Your task to perform on an android device: Search for "bose soundsport free" on newegg.com, select the first entry, add it to the cart, then select checkout. Image 0: 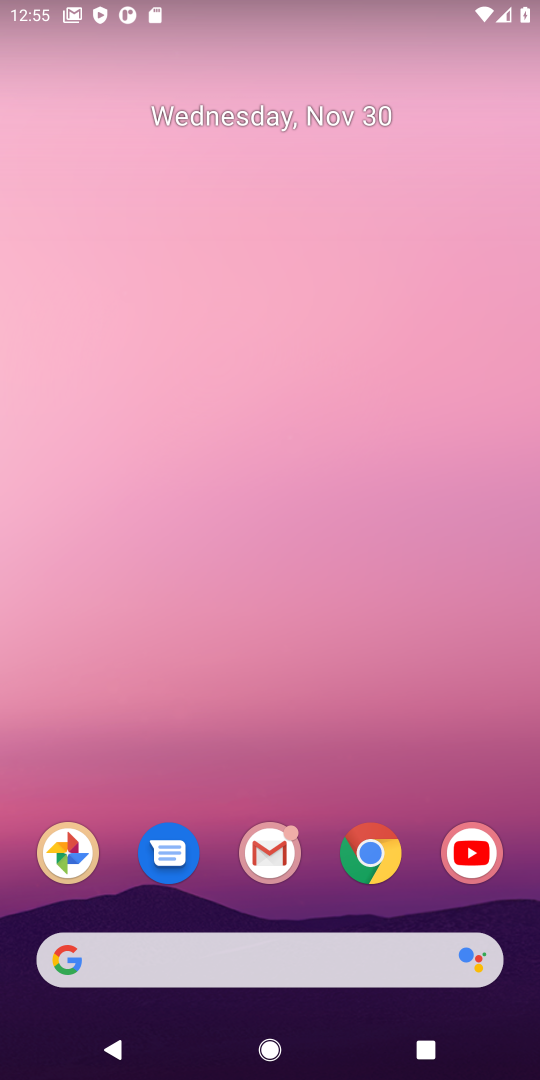
Step 0: click (377, 852)
Your task to perform on an android device: Search for "bose soundsport free" on newegg.com, select the first entry, add it to the cart, then select checkout. Image 1: 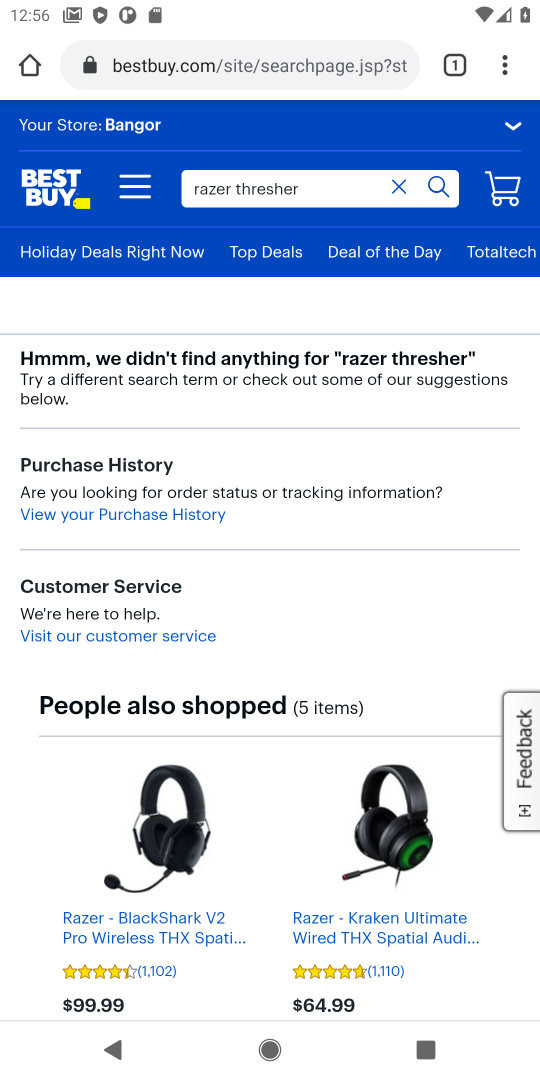
Step 1: click (236, 67)
Your task to perform on an android device: Search for "bose soundsport free" on newegg.com, select the first entry, add it to the cart, then select checkout. Image 2: 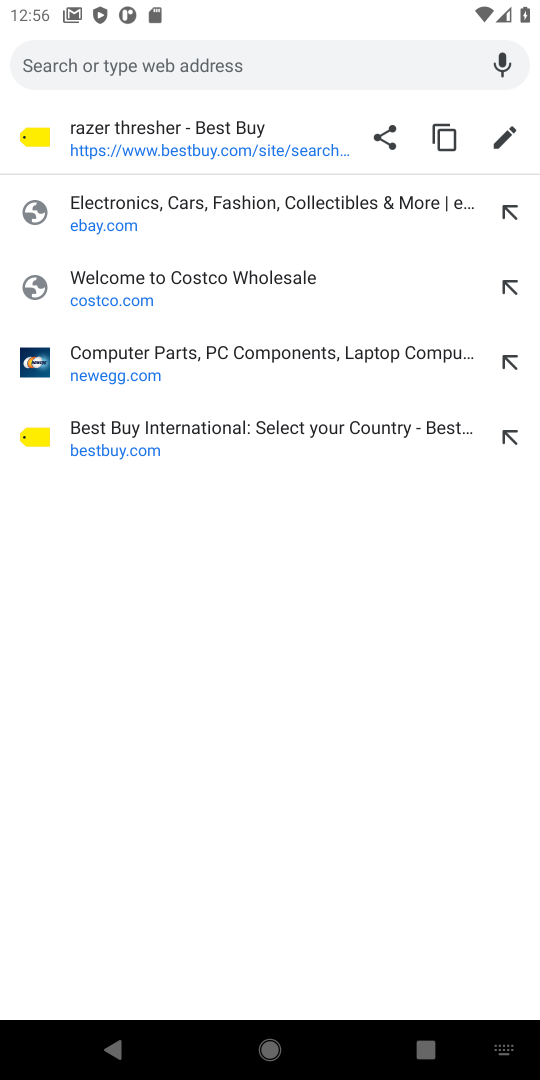
Step 2: click (91, 360)
Your task to perform on an android device: Search for "bose soundsport free" on newegg.com, select the first entry, add it to the cart, then select checkout. Image 3: 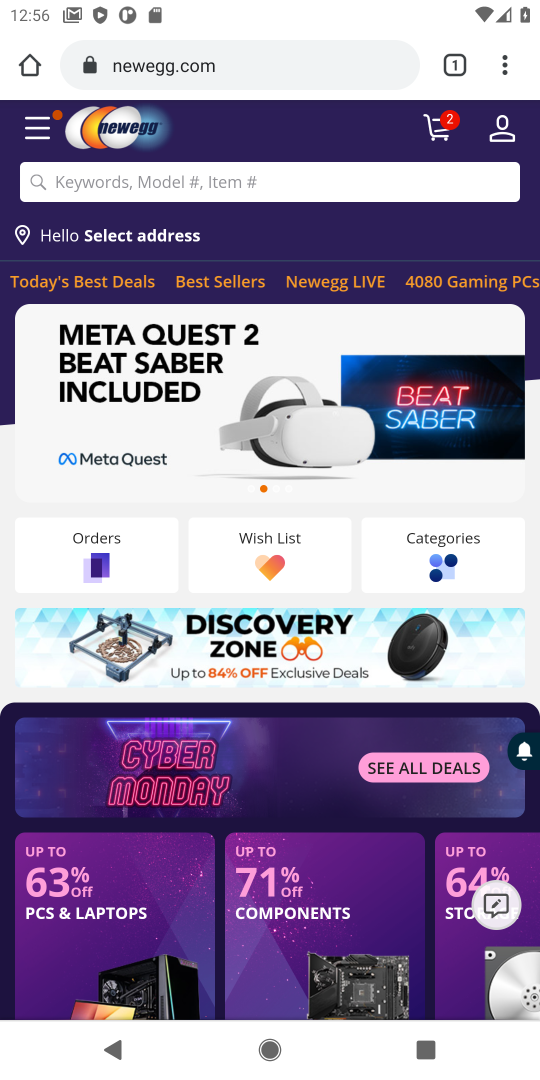
Step 3: click (86, 187)
Your task to perform on an android device: Search for "bose soundsport free" on newegg.com, select the first entry, add it to the cart, then select checkout. Image 4: 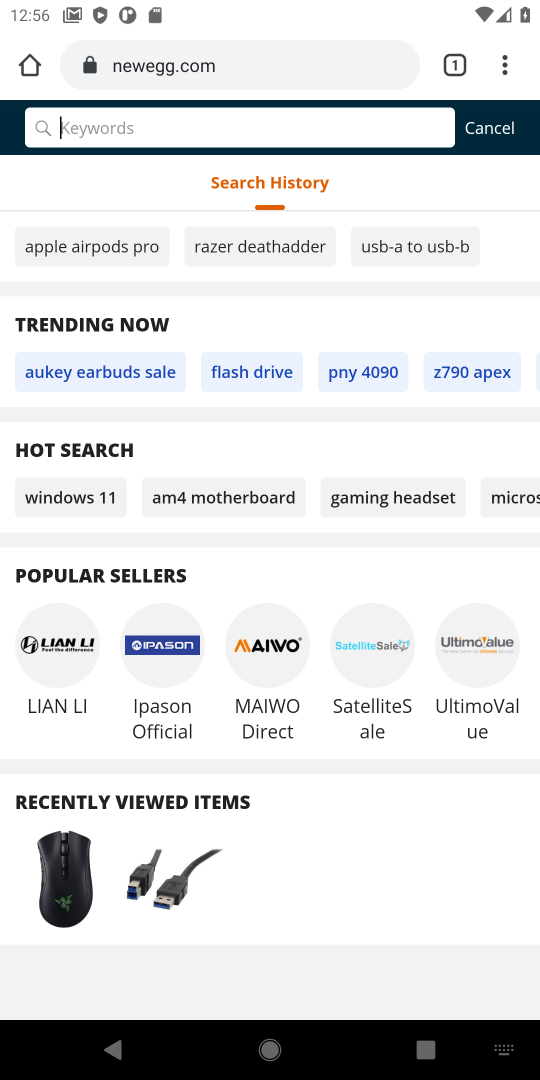
Step 4: type "bose soundsport free"
Your task to perform on an android device: Search for "bose soundsport free" on newegg.com, select the first entry, add it to the cart, then select checkout. Image 5: 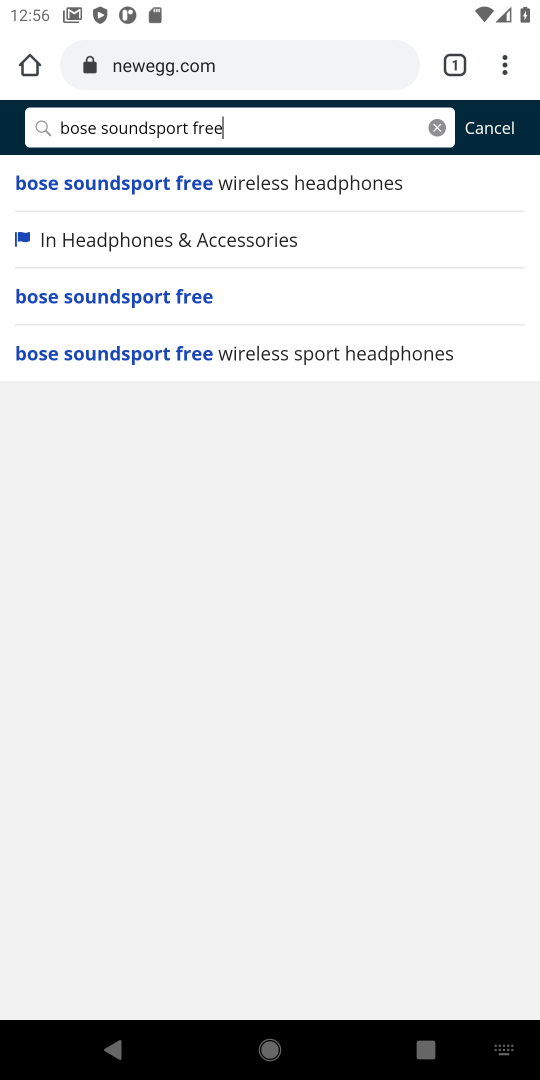
Step 5: click (111, 294)
Your task to perform on an android device: Search for "bose soundsport free" on newegg.com, select the first entry, add it to the cart, then select checkout. Image 6: 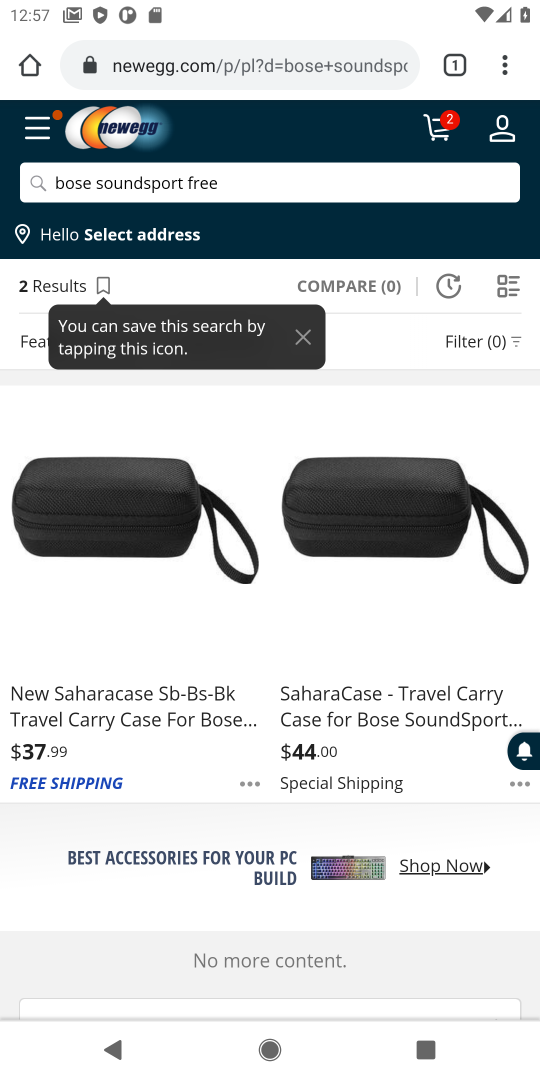
Step 6: click (109, 561)
Your task to perform on an android device: Search for "bose soundsport free" on newegg.com, select the first entry, add it to the cart, then select checkout. Image 7: 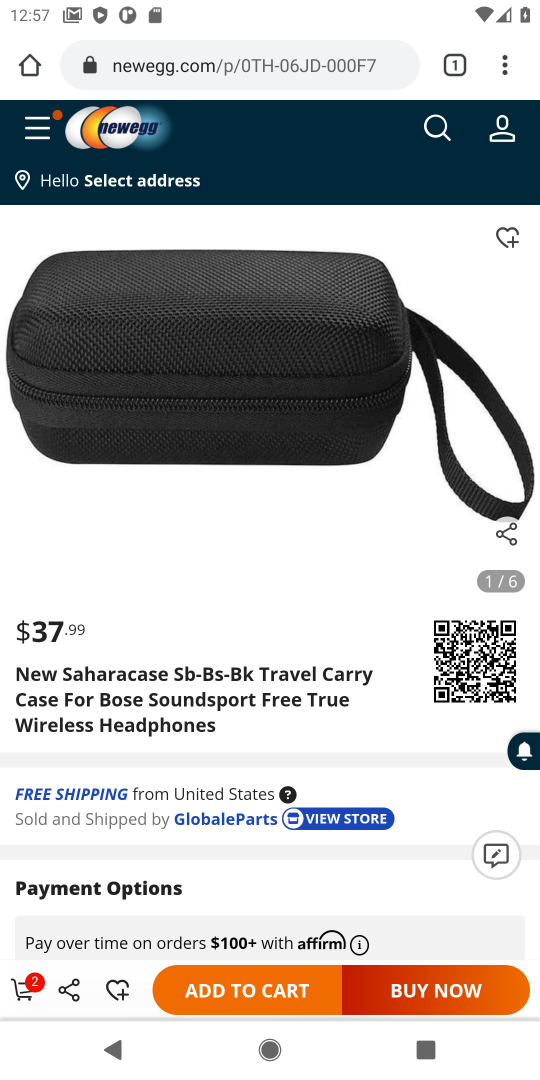
Step 7: drag from (231, 709) to (243, 583)
Your task to perform on an android device: Search for "bose soundsport free" on newegg.com, select the first entry, add it to the cart, then select checkout. Image 8: 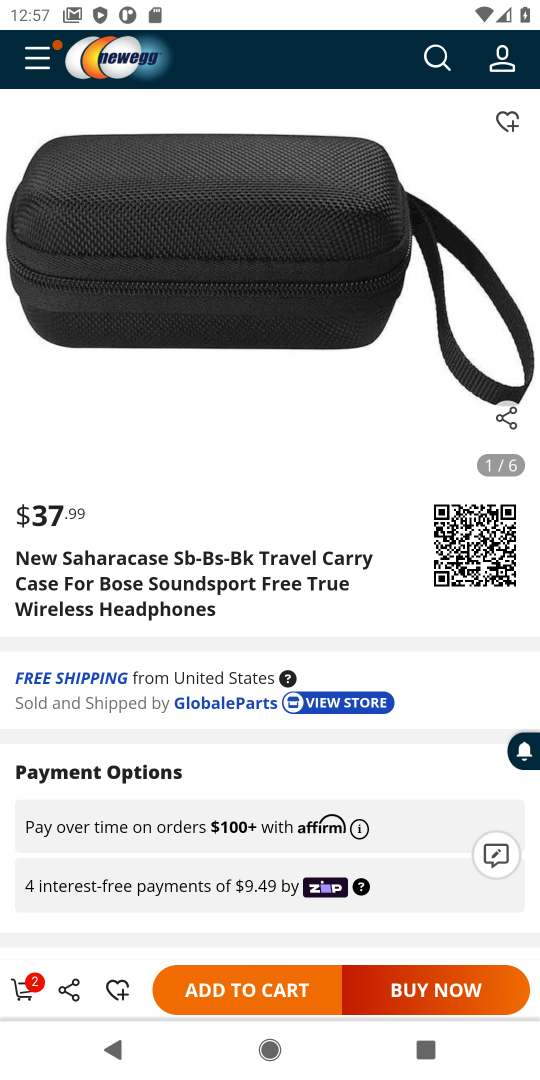
Step 8: click (246, 999)
Your task to perform on an android device: Search for "bose soundsport free" on newegg.com, select the first entry, add it to the cart, then select checkout. Image 9: 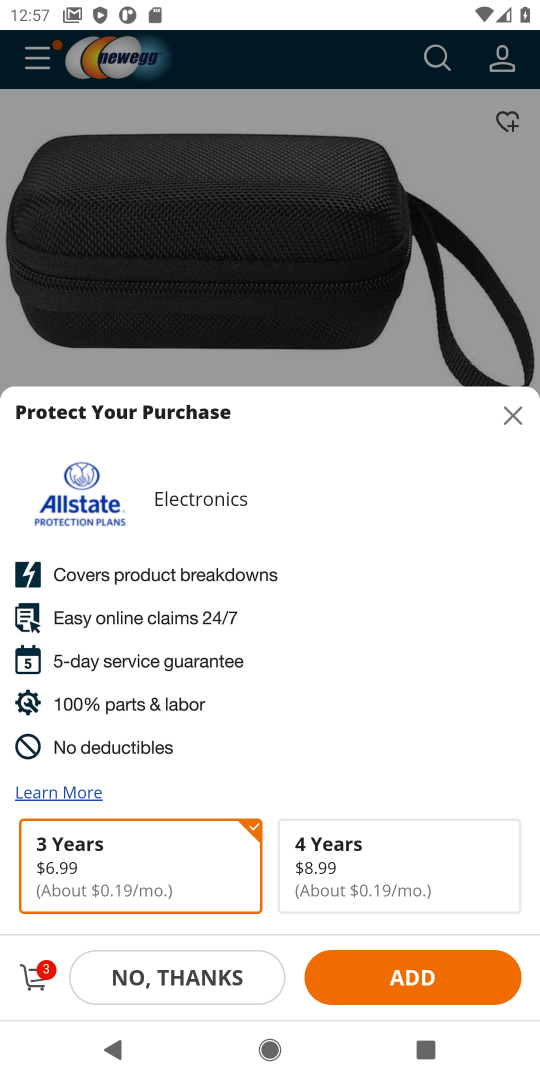
Step 9: click (37, 989)
Your task to perform on an android device: Search for "bose soundsport free" on newegg.com, select the first entry, add it to the cart, then select checkout. Image 10: 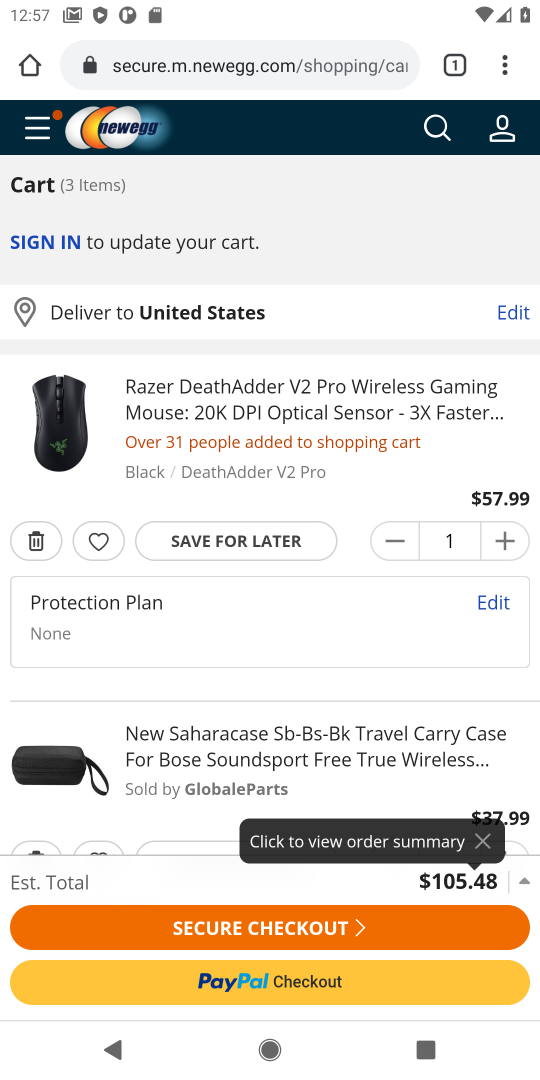
Step 10: click (270, 925)
Your task to perform on an android device: Search for "bose soundsport free" on newegg.com, select the first entry, add it to the cart, then select checkout. Image 11: 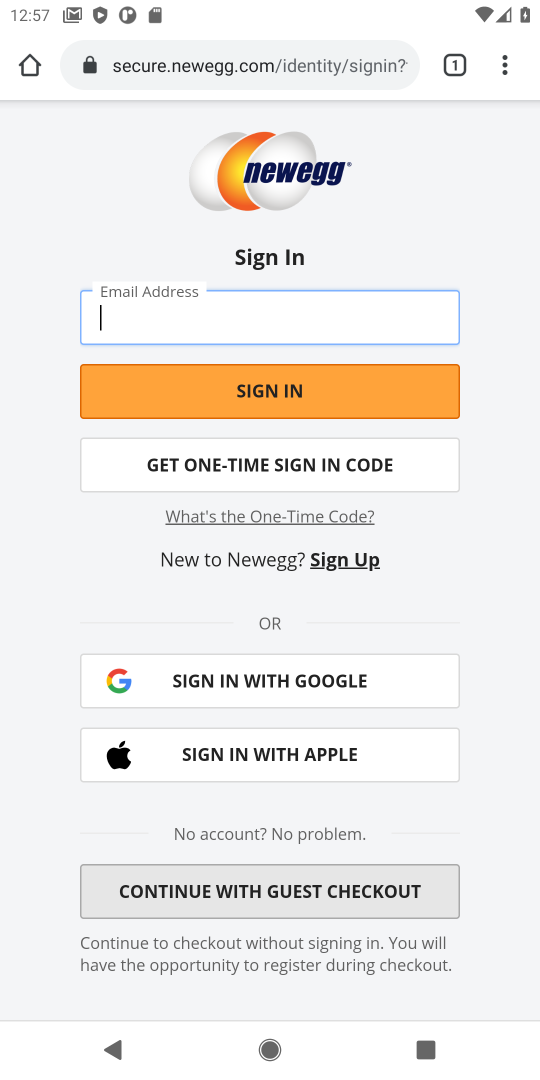
Step 11: task complete